Your task to perform on an android device: Go to sound settings Image 0: 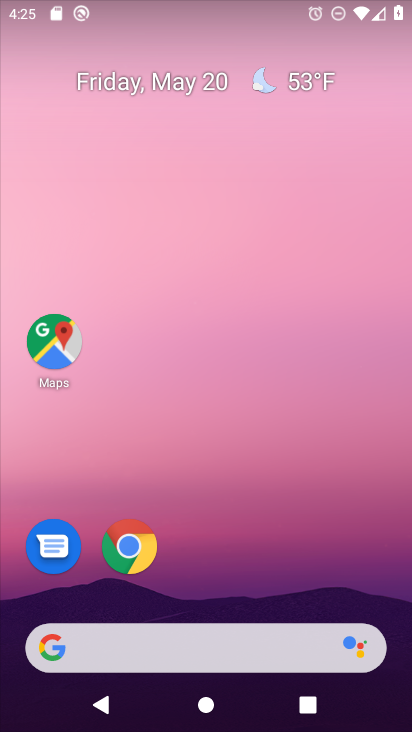
Step 0: drag from (286, 490) to (258, 20)
Your task to perform on an android device: Go to sound settings Image 1: 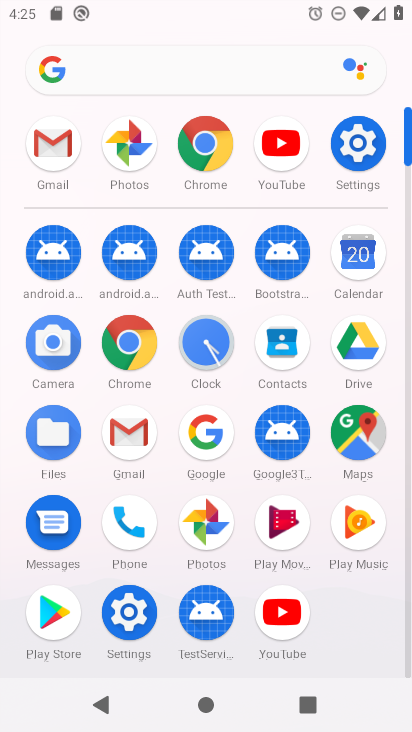
Step 1: click (360, 147)
Your task to perform on an android device: Go to sound settings Image 2: 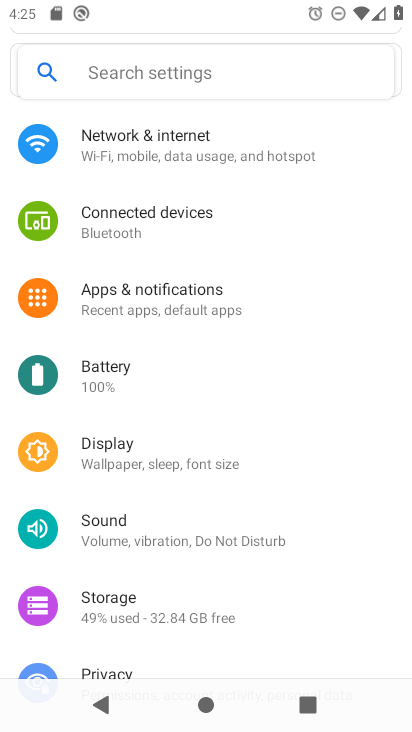
Step 2: click (125, 535)
Your task to perform on an android device: Go to sound settings Image 3: 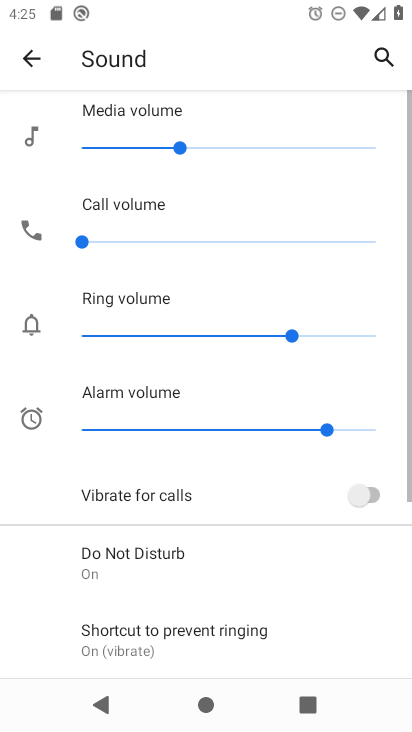
Step 3: task complete